Your task to perform on an android device: toggle sleep mode Image 0: 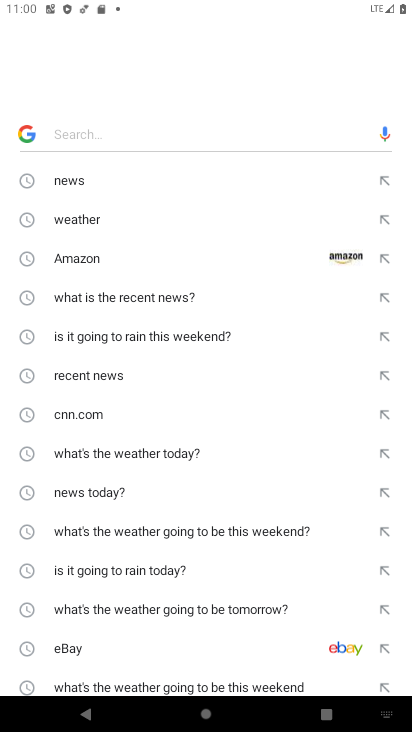
Step 0: press home button
Your task to perform on an android device: toggle sleep mode Image 1: 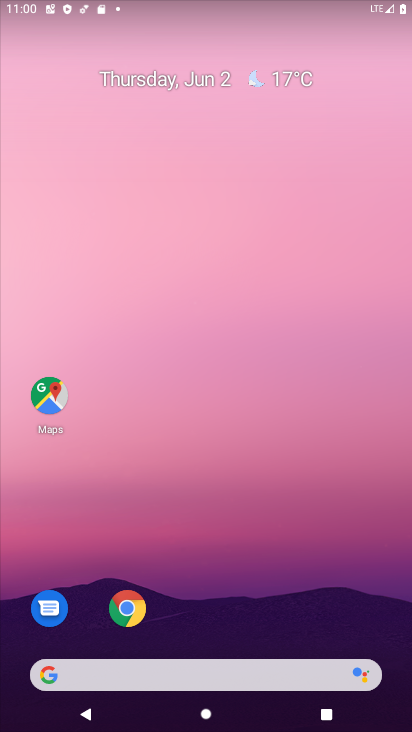
Step 1: drag from (250, 273) to (182, 30)
Your task to perform on an android device: toggle sleep mode Image 2: 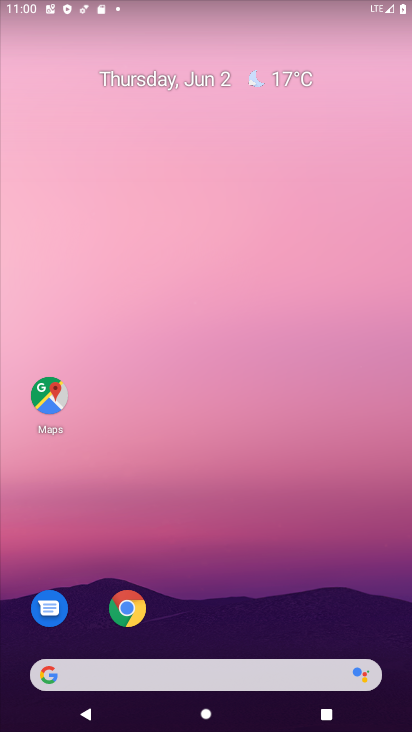
Step 2: drag from (244, 410) to (148, 17)
Your task to perform on an android device: toggle sleep mode Image 3: 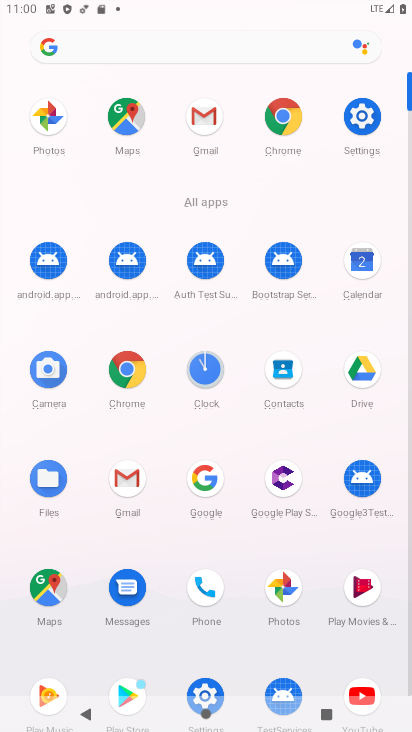
Step 3: click (365, 116)
Your task to perform on an android device: toggle sleep mode Image 4: 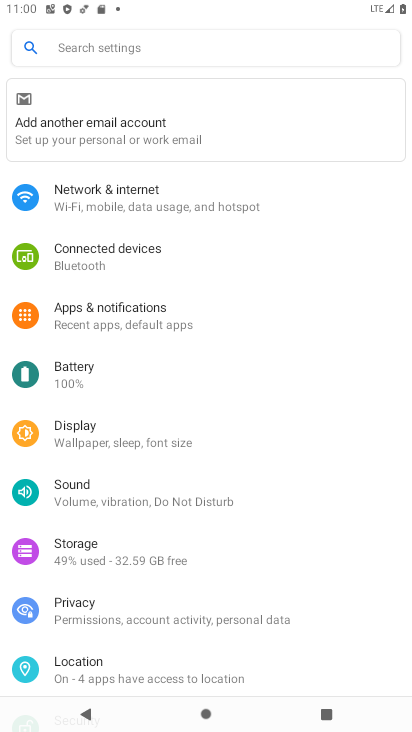
Step 4: click (126, 424)
Your task to perform on an android device: toggle sleep mode Image 5: 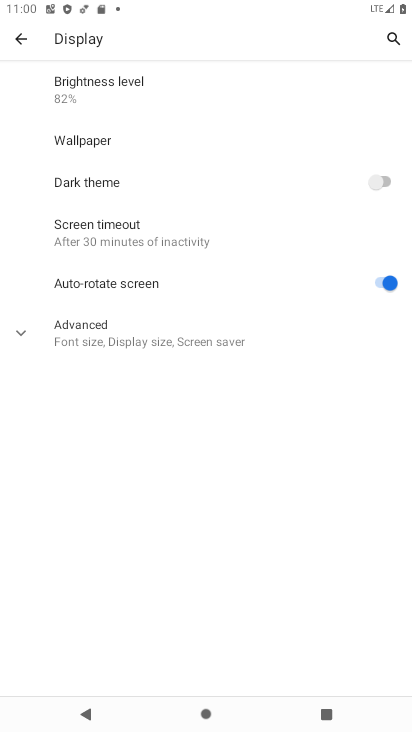
Step 5: task complete